Your task to perform on an android device: Open battery settings Image 0: 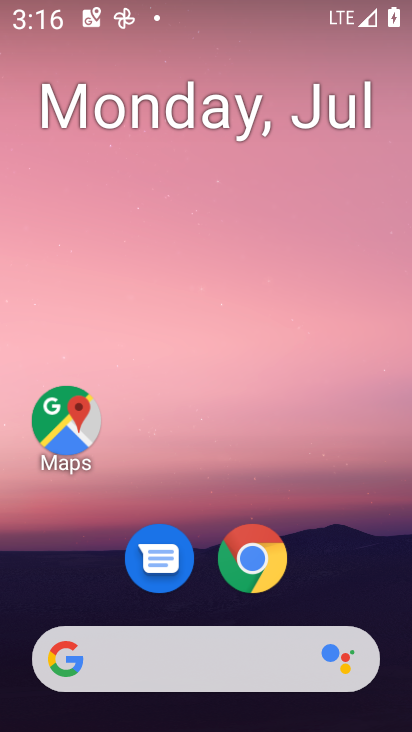
Step 0: drag from (336, 582) to (323, 74)
Your task to perform on an android device: Open battery settings Image 1: 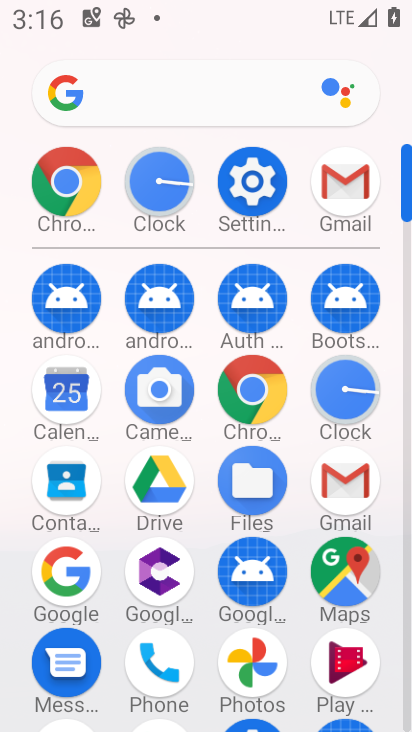
Step 1: click (257, 191)
Your task to perform on an android device: Open battery settings Image 2: 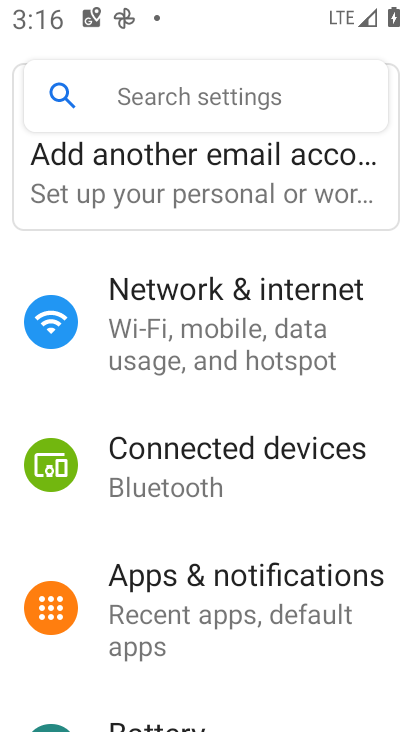
Step 2: drag from (323, 614) to (322, 416)
Your task to perform on an android device: Open battery settings Image 3: 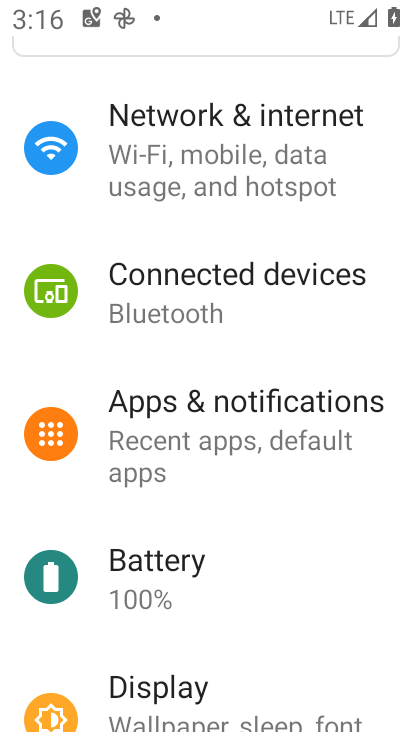
Step 3: drag from (307, 568) to (307, 413)
Your task to perform on an android device: Open battery settings Image 4: 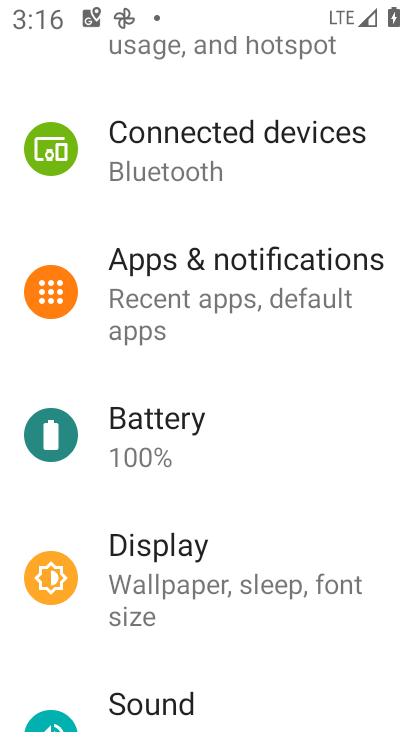
Step 4: drag from (312, 636) to (308, 463)
Your task to perform on an android device: Open battery settings Image 5: 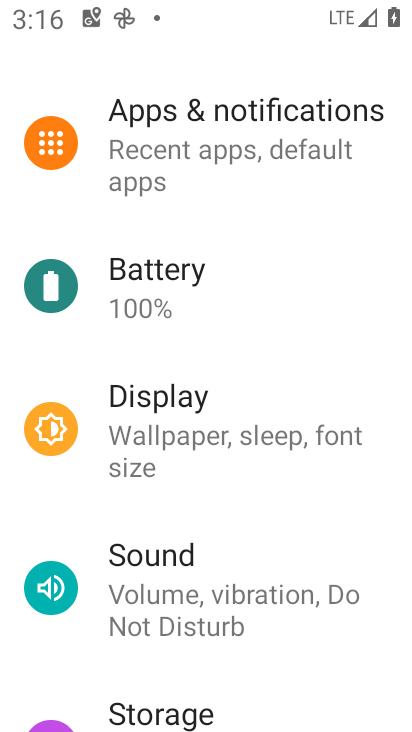
Step 5: drag from (311, 573) to (307, 461)
Your task to perform on an android device: Open battery settings Image 6: 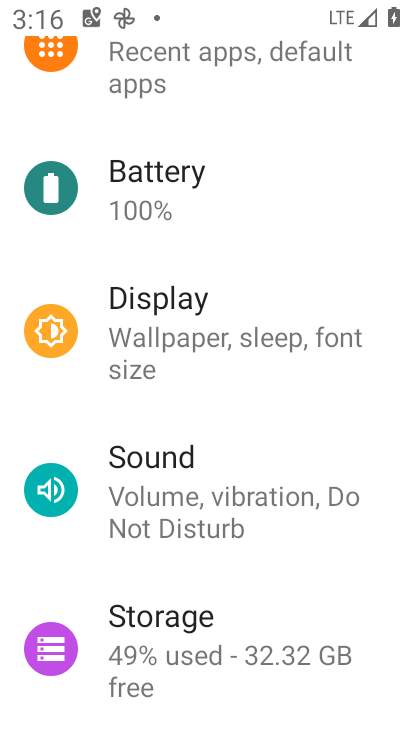
Step 6: drag from (321, 599) to (322, 470)
Your task to perform on an android device: Open battery settings Image 7: 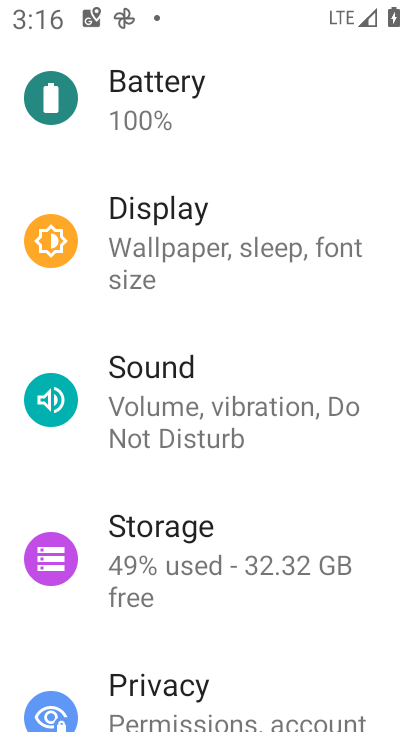
Step 7: drag from (320, 276) to (323, 414)
Your task to perform on an android device: Open battery settings Image 8: 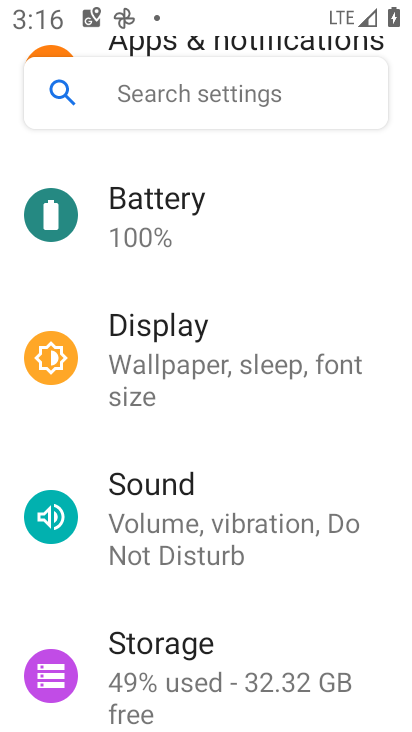
Step 8: drag from (285, 172) to (288, 304)
Your task to perform on an android device: Open battery settings Image 9: 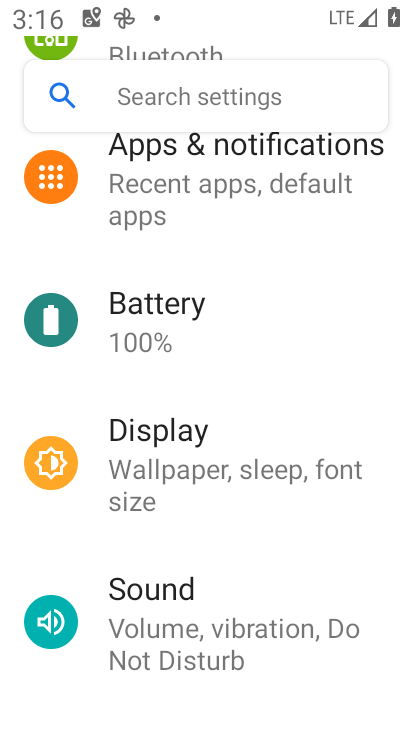
Step 9: click (171, 326)
Your task to perform on an android device: Open battery settings Image 10: 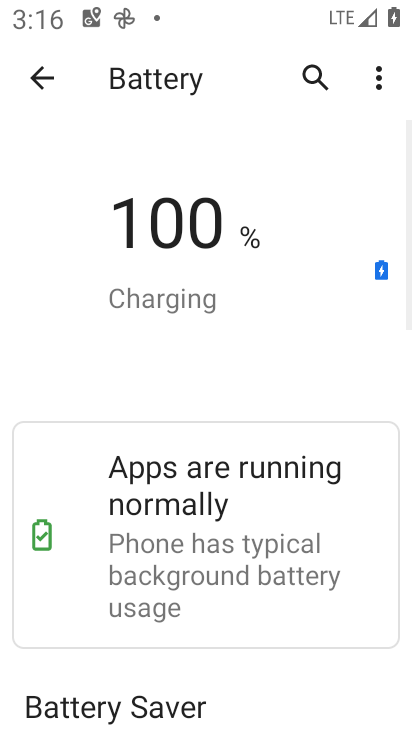
Step 10: task complete